Your task to perform on an android device: open app "The Home Depot" (install if not already installed) Image 0: 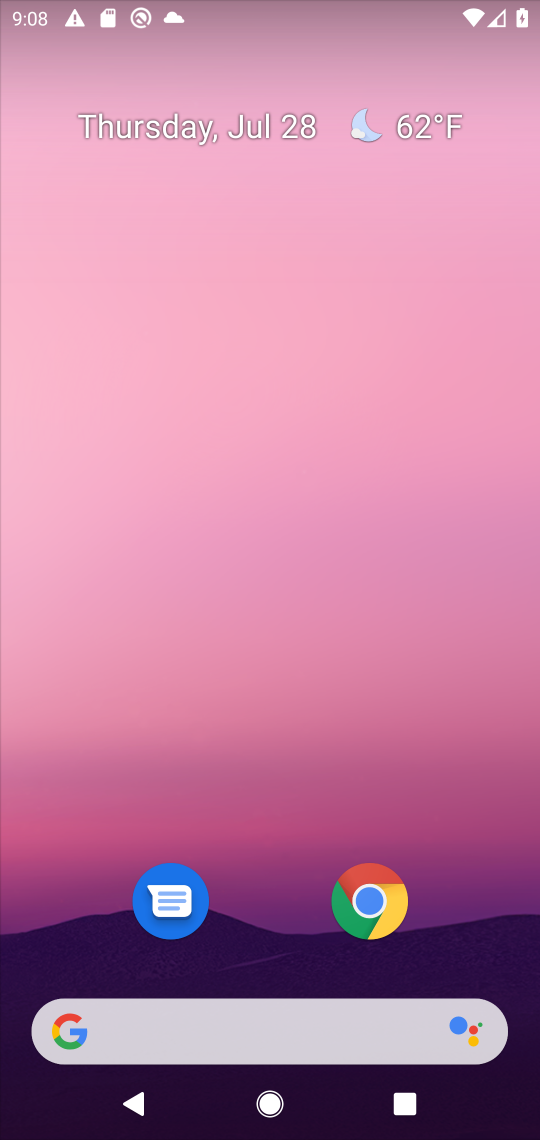
Step 0: drag from (503, 1068) to (432, 247)
Your task to perform on an android device: open app "The Home Depot" (install if not already installed) Image 1: 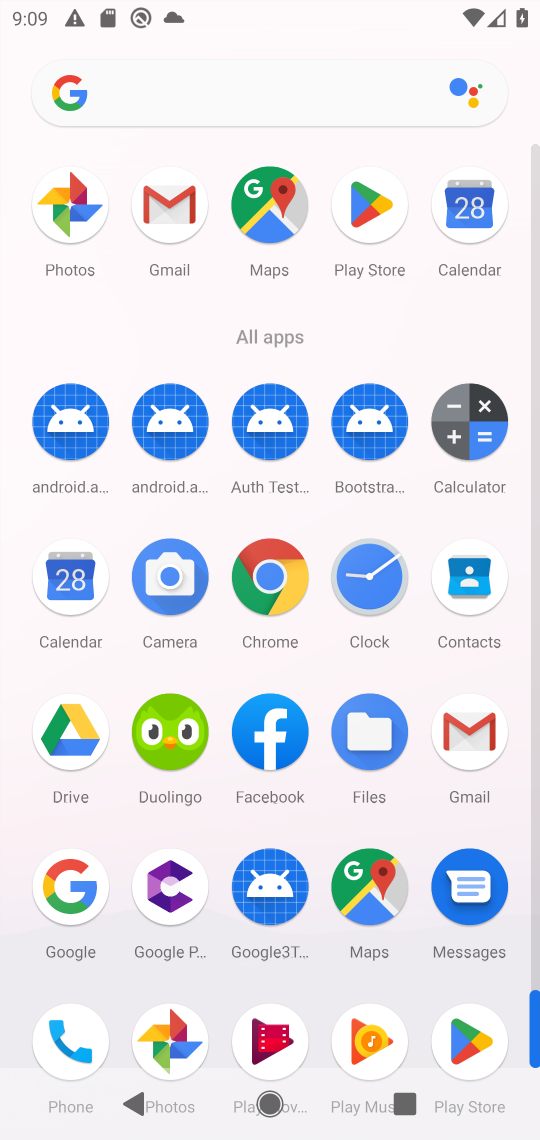
Step 1: task complete